Your task to perform on an android device: choose inbox layout in the gmail app Image 0: 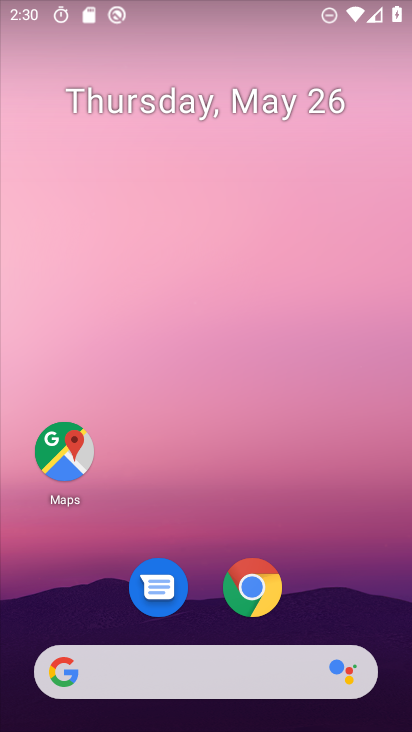
Step 0: drag from (324, 520) to (303, 114)
Your task to perform on an android device: choose inbox layout in the gmail app Image 1: 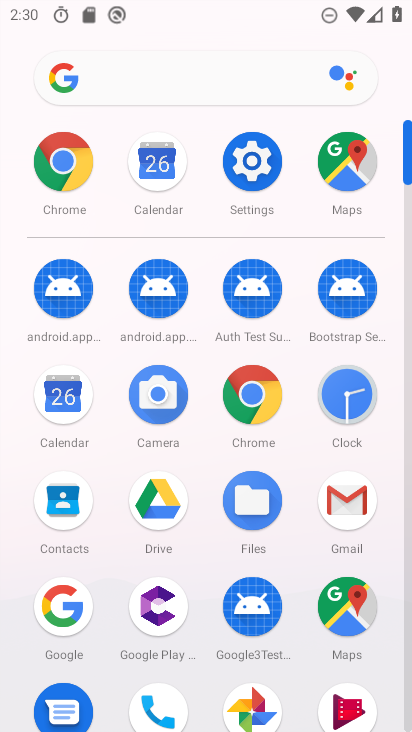
Step 1: click (353, 504)
Your task to perform on an android device: choose inbox layout in the gmail app Image 2: 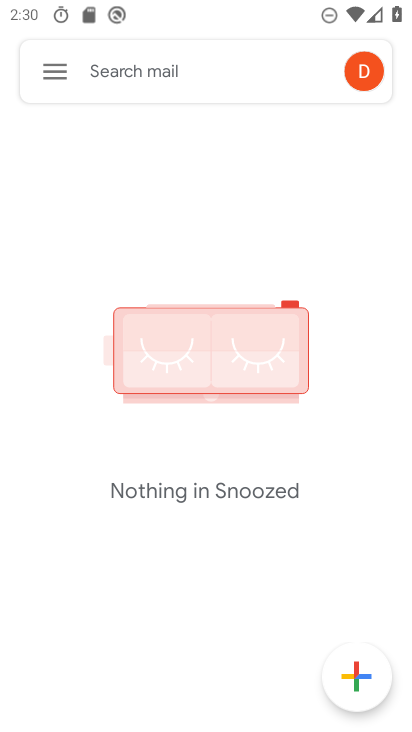
Step 2: click (55, 72)
Your task to perform on an android device: choose inbox layout in the gmail app Image 3: 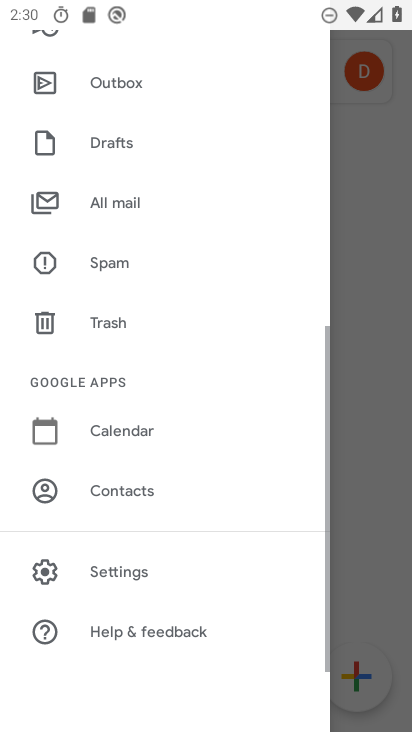
Step 3: click (147, 565)
Your task to perform on an android device: choose inbox layout in the gmail app Image 4: 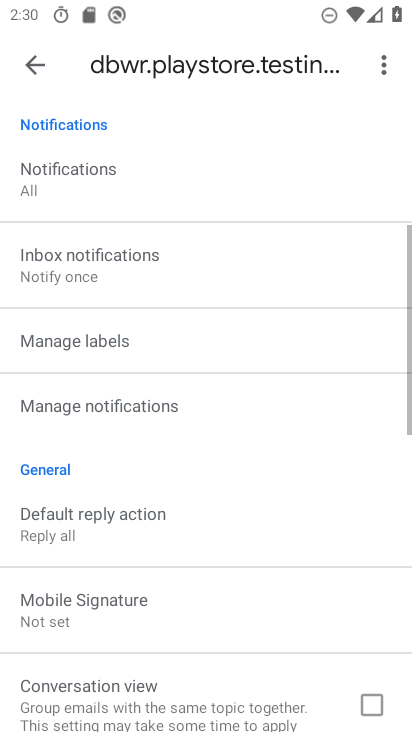
Step 4: drag from (149, 164) to (186, 675)
Your task to perform on an android device: choose inbox layout in the gmail app Image 5: 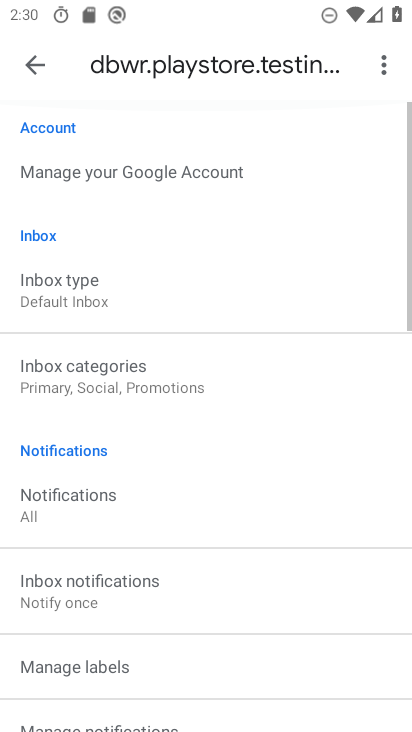
Step 5: drag from (136, 225) to (129, 572)
Your task to perform on an android device: choose inbox layout in the gmail app Image 6: 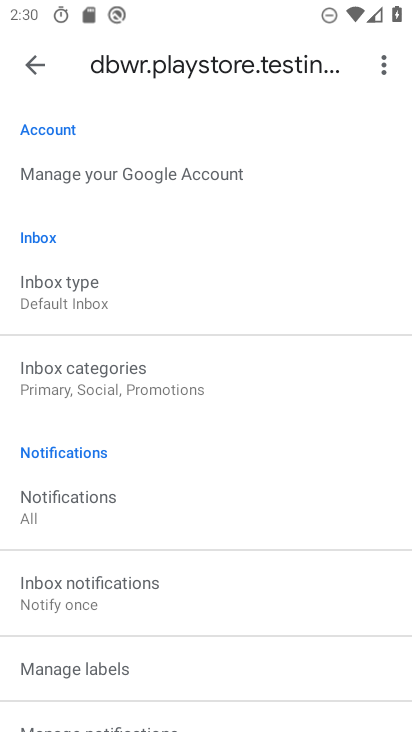
Step 6: click (90, 301)
Your task to perform on an android device: choose inbox layout in the gmail app Image 7: 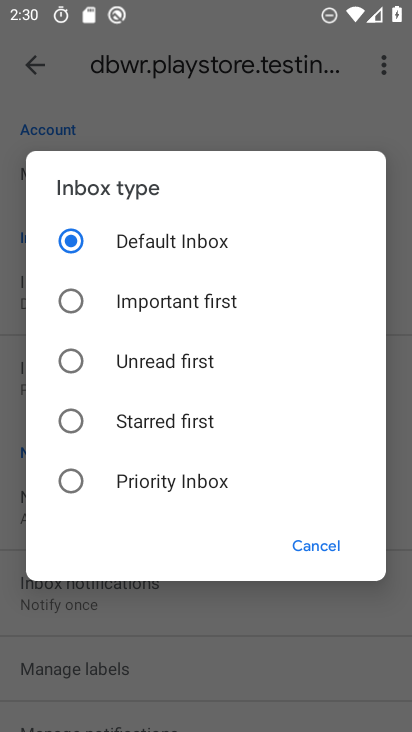
Step 7: task complete